Your task to perform on an android device: What's the latest video from GameXplain? Image 0: 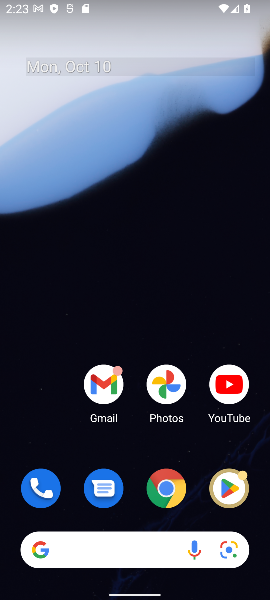
Step 0: click (89, 557)
Your task to perform on an android device: What's the latest video from GameXplain? Image 1: 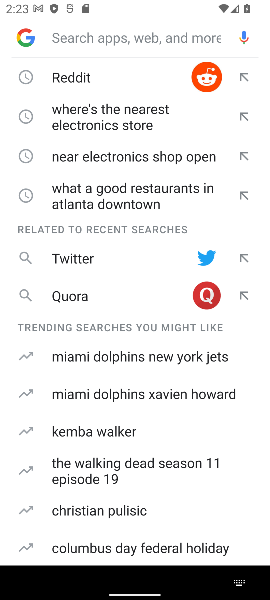
Step 1: click (64, 38)
Your task to perform on an android device: What's the latest video from GameXplain? Image 2: 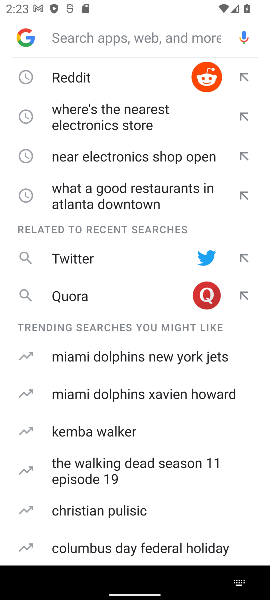
Step 2: type "What's the latest video from GameXplain?"
Your task to perform on an android device: What's the latest video from GameXplain? Image 3: 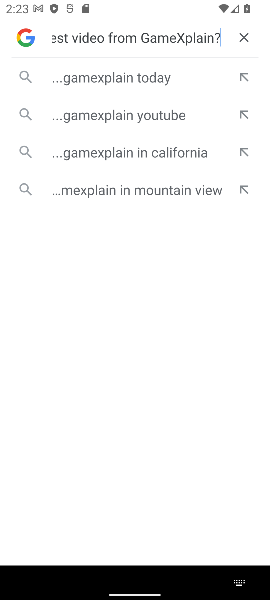
Step 3: click (132, 83)
Your task to perform on an android device: What's the latest video from GameXplain? Image 4: 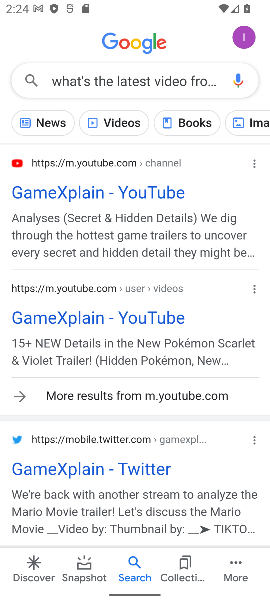
Step 4: click (53, 188)
Your task to perform on an android device: What's the latest video from GameXplain? Image 5: 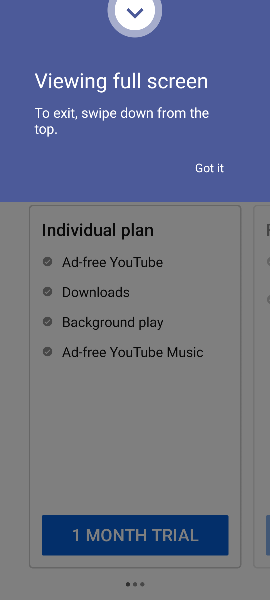
Step 5: click (206, 164)
Your task to perform on an android device: What's the latest video from GameXplain? Image 6: 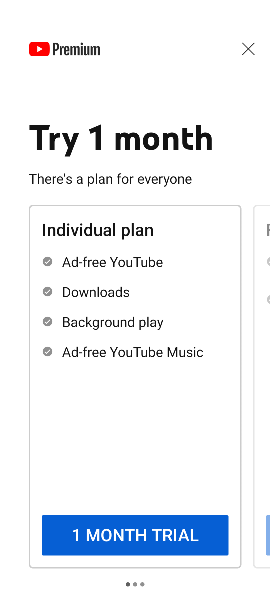
Step 6: click (250, 51)
Your task to perform on an android device: What's the latest video from GameXplain? Image 7: 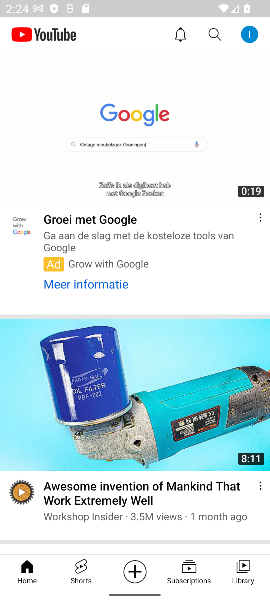
Step 7: click (209, 35)
Your task to perform on an android device: What's the latest video from GameXplain? Image 8: 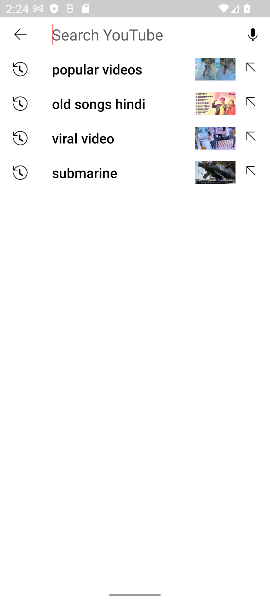
Step 8: click (106, 42)
Your task to perform on an android device: What's the latest video from GameXplain? Image 9: 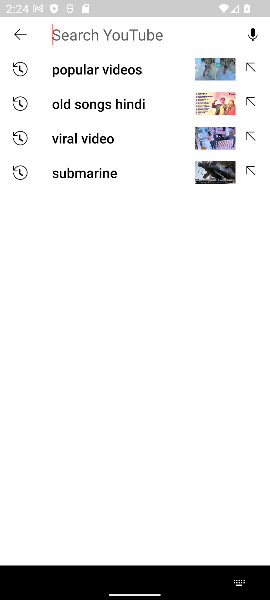
Step 9: type "What's the latest video from GameXplain?"
Your task to perform on an android device: What's the latest video from GameXplain? Image 10: 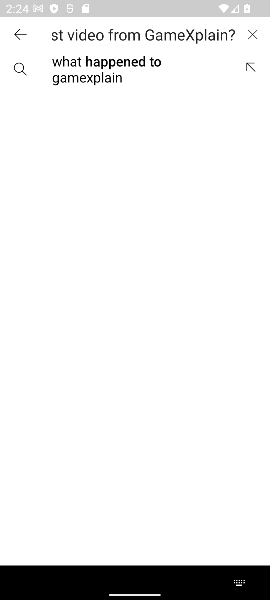
Step 10: click (172, 74)
Your task to perform on an android device: What's the latest video from GameXplain? Image 11: 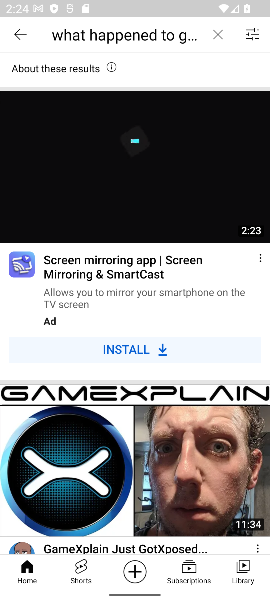
Step 11: task complete